Your task to perform on an android device: What time is it in London? Image 0: 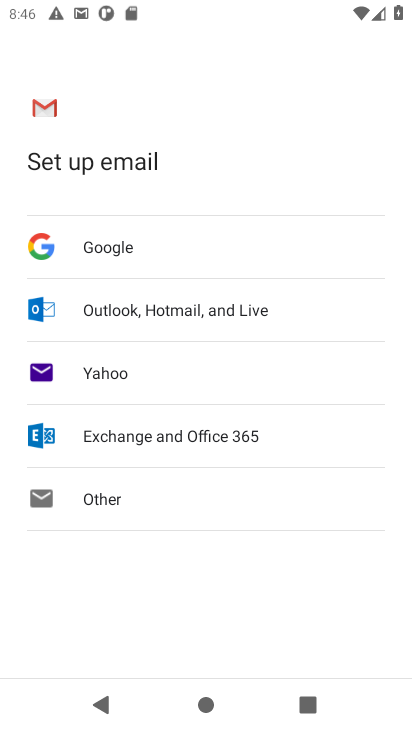
Step 0: press home button
Your task to perform on an android device: What time is it in London? Image 1: 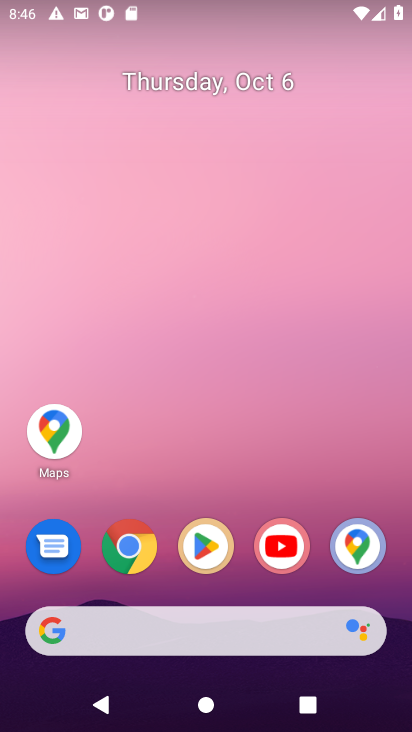
Step 1: click (129, 545)
Your task to perform on an android device: What time is it in London? Image 2: 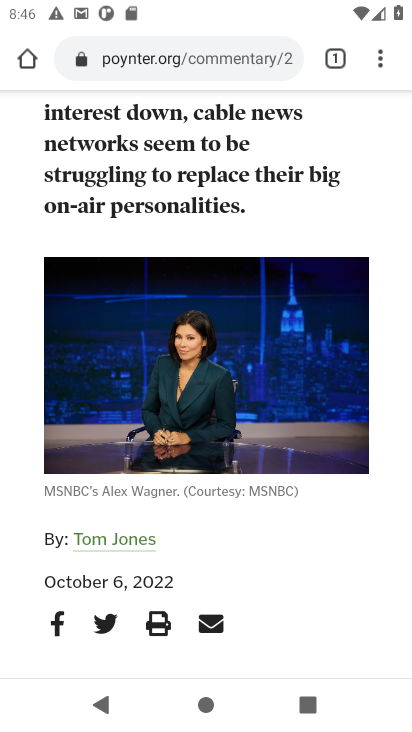
Step 2: click (237, 42)
Your task to perform on an android device: What time is it in London? Image 3: 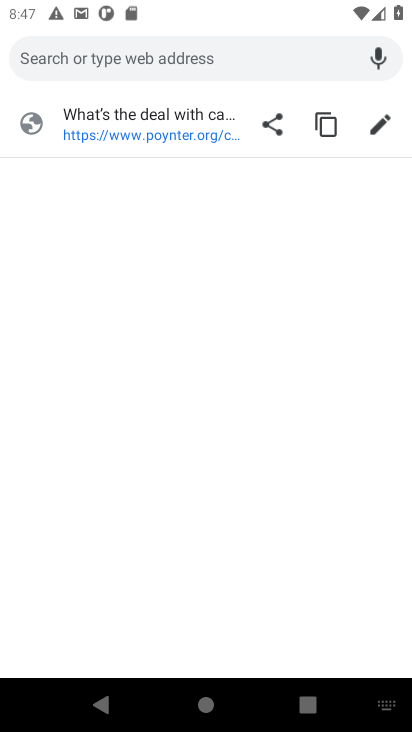
Step 3: type "time in london"
Your task to perform on an android device: What time is it in London? Image 4: 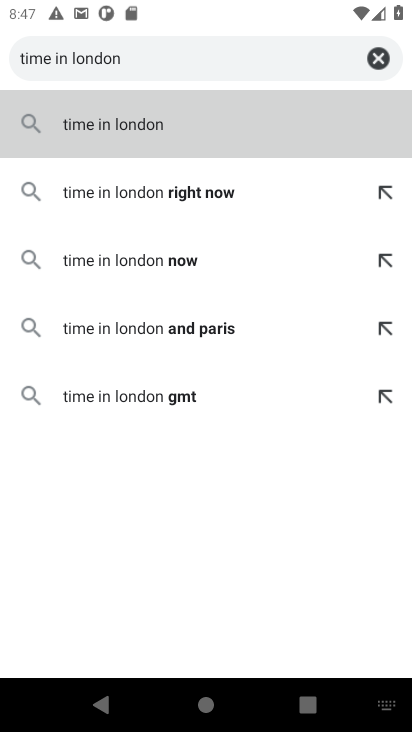
Step 4: click (120, 127)
Your task to perform on an android device: What time is it in London? Image 5: 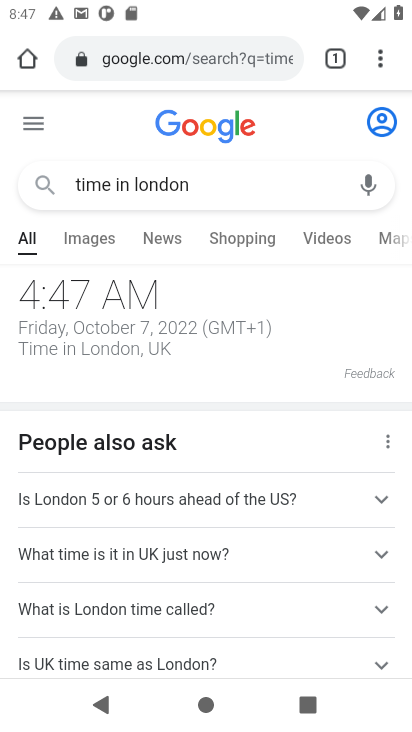
Step 5: task complete